Your task to perform on an android device: Go to CNN.com Image 0: 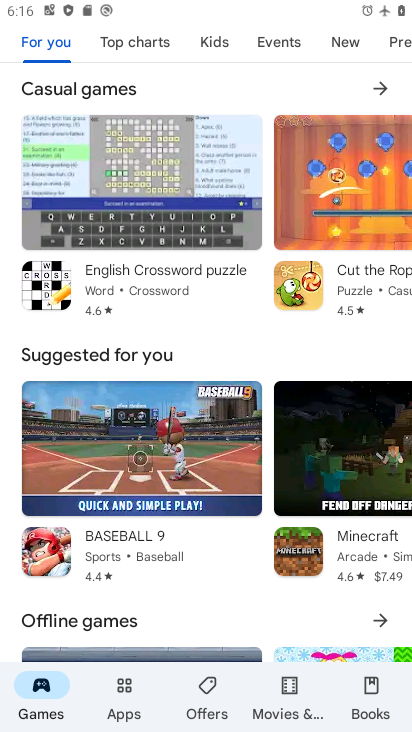
Step 0: press home button
Your task to perform on an android device: Go to CNN.com Image 1: 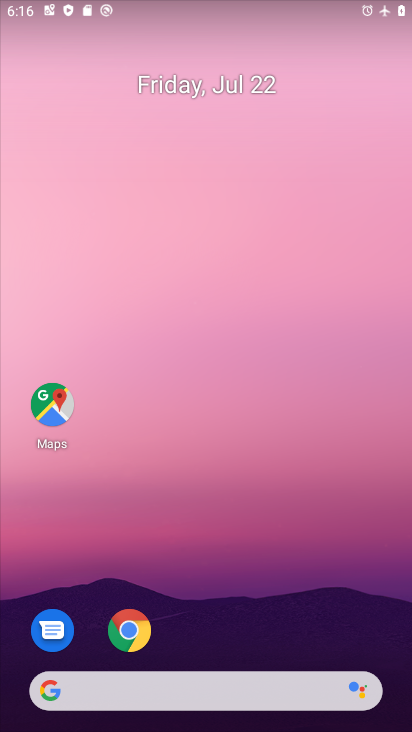
Step 1: drag from (292, 684) to (267, 179)
Your task to perform on an android device: Go to CNN.com Image 2: 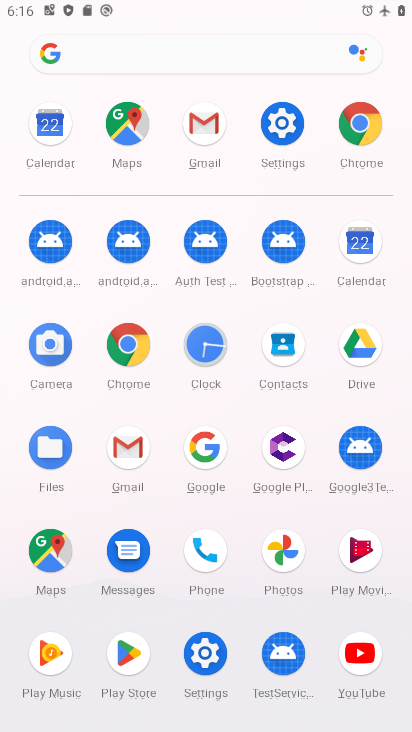
Step 2: click (130, 349)
Your task to perform on an android device: Go to CNN.com Image 3: 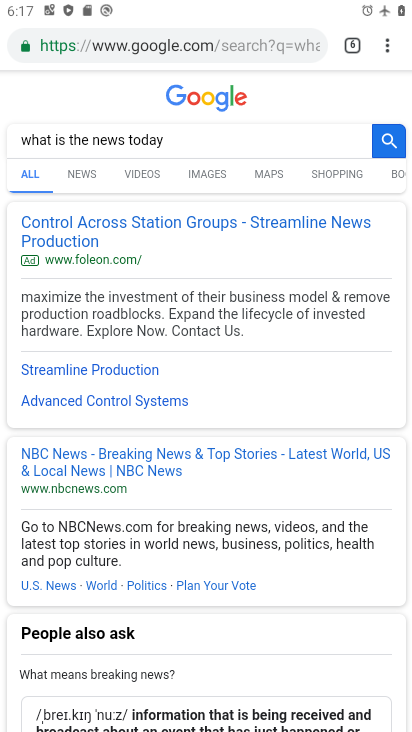
Step 3: click (193, 44)
Your task to perform on an android device: Go to CNN.com Image 4: 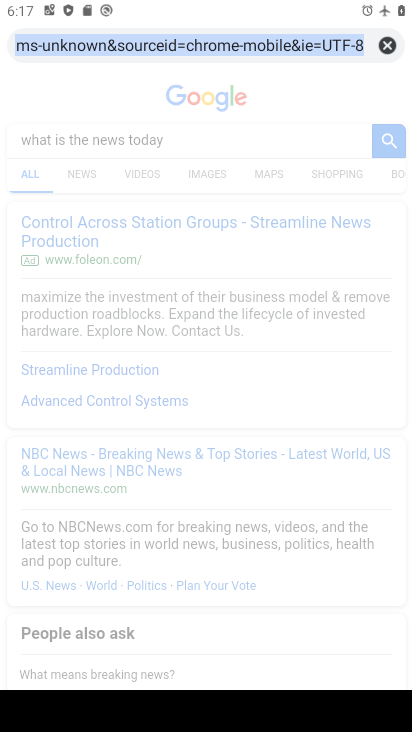
Step 4: type "cnn.com"
Your task to perform on an android device: Go to CNN.com Image 5: 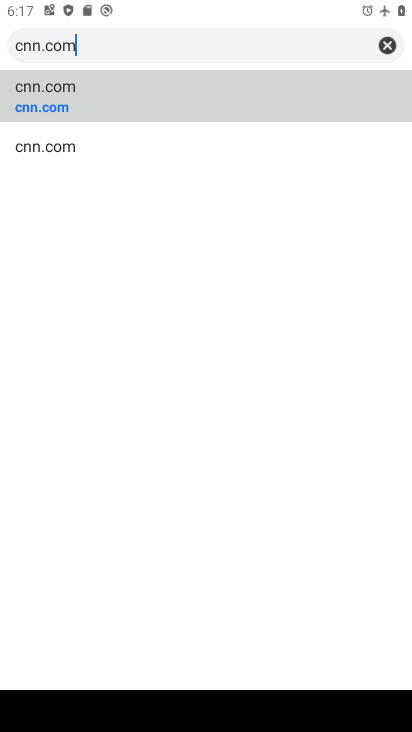
Step 5: click (311, 105)
Your task to perform on an android device: Go to CNN.com Image 6: 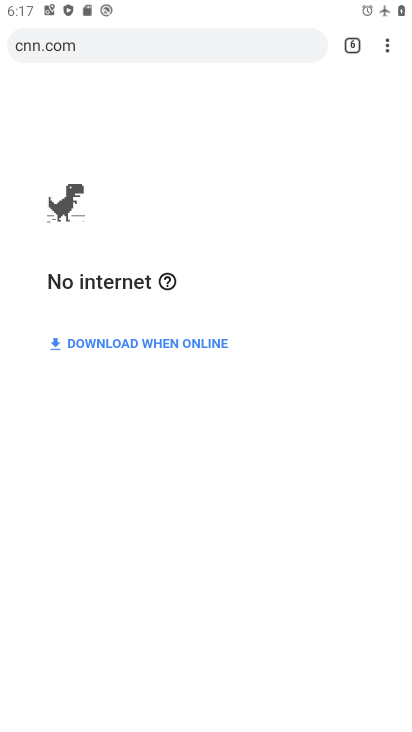
Step 6: task complete